Your task to perform on an android device: check android version Image 0: 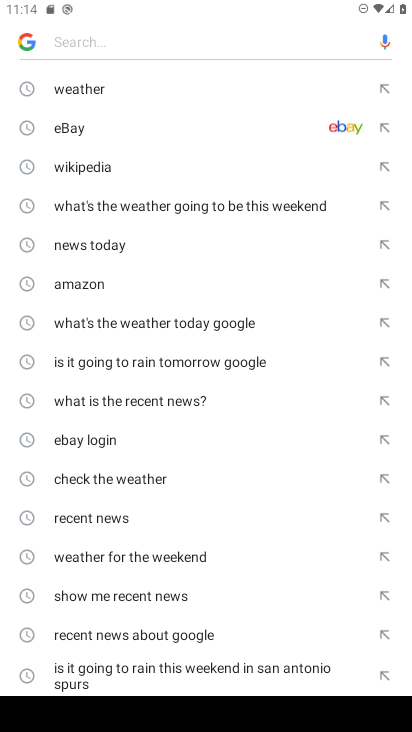
Step 0: press home button
Your task to perform on an android device: check android version Image 1: 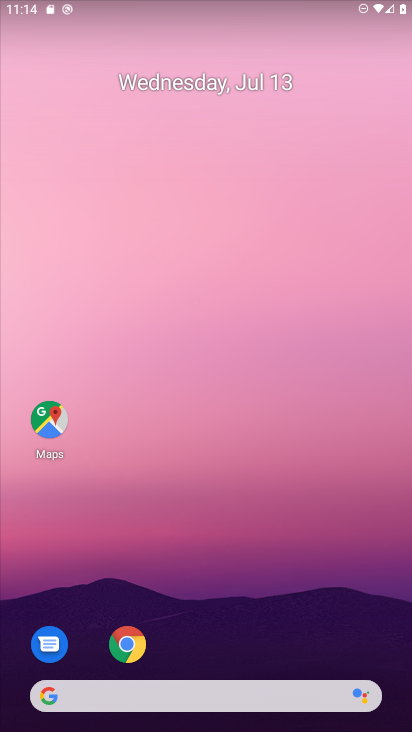
Step 1: drag from (245, 581) to (173, 156)
Your task to perform on an android device: check android version Image 2: 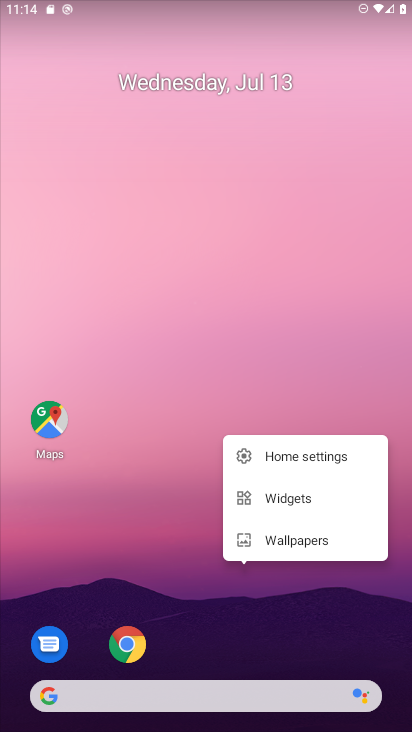
Step 2: click (138, 337)
Your task to perform on an android device: check android version Image 3: 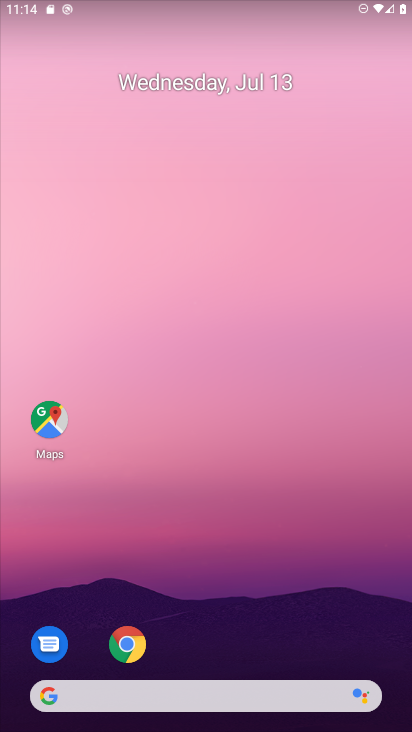
Step 3: drag from (208, 576) to (192, 54)
Your task to perform on an android device: check android version Image 4: 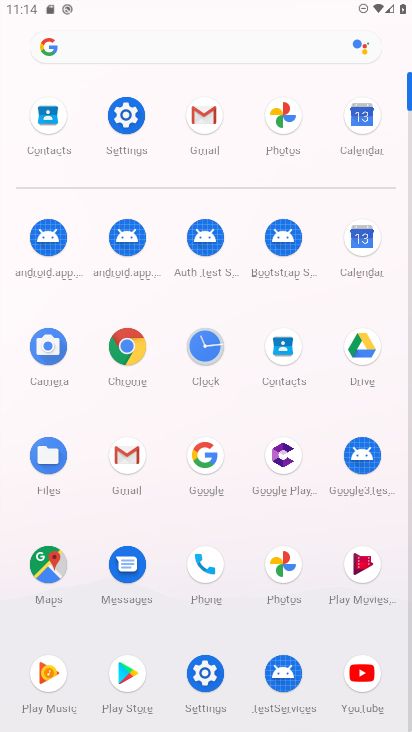
Step 4: click (127, 111)
Your task to perform on an android device: check android version Image 5: 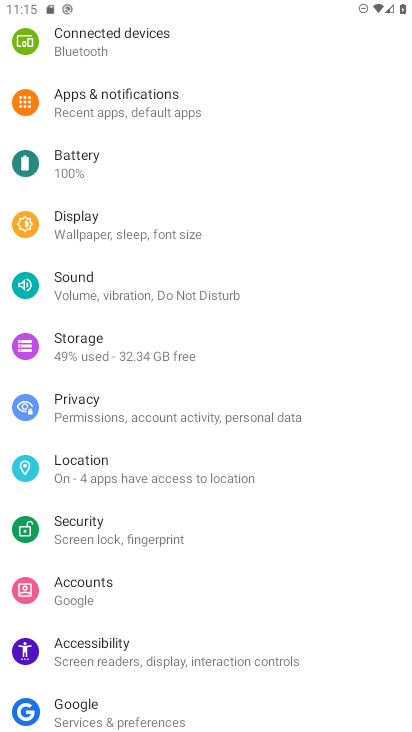
Step 5: drag from (172, 586) to (172, 227)
Your task to perform on an android device: check android version Image 6: 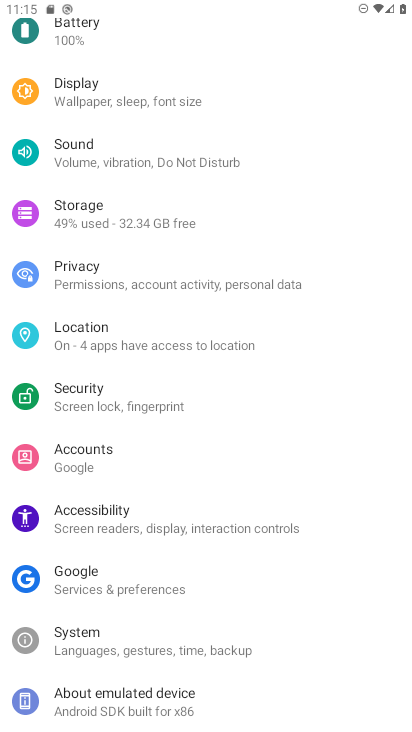
Step 6: drag from (236, 603) to (221, 306)
Your task to perform on an android device: check android version Image 7: 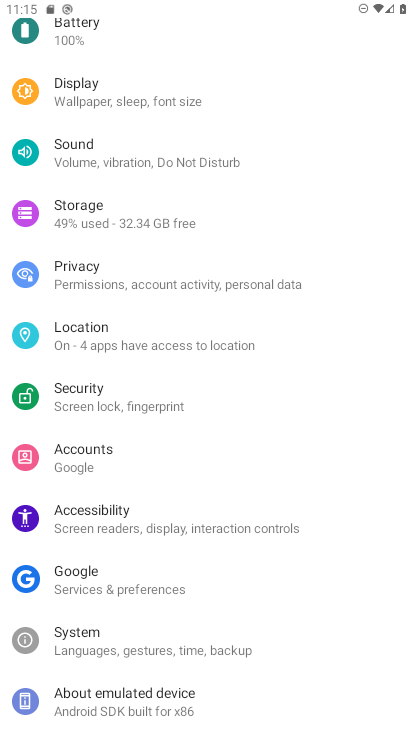
Step 7: click (133, 698)
Your task to perform on an android device: check android version Image 8: 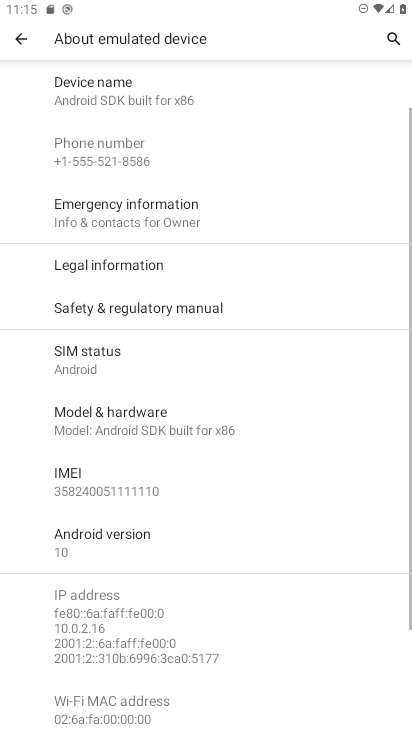
Step 8: task complete